Your task to perform on an android device: clear all cookies in the chrome app Image 0: 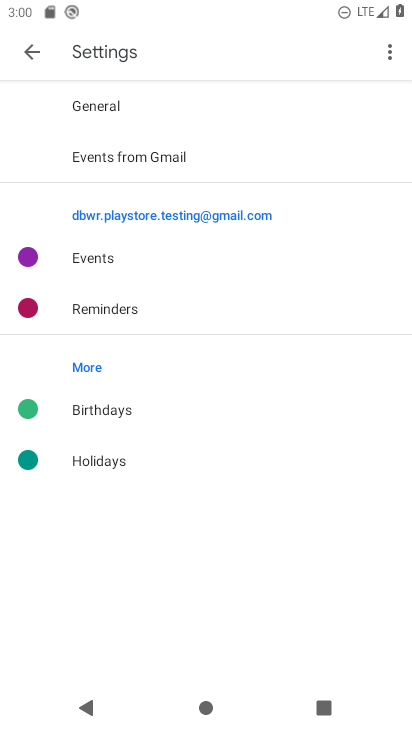
Step 0: press home button
Your task to perform on an android device: clear all cookies in the chrome app Image 1: 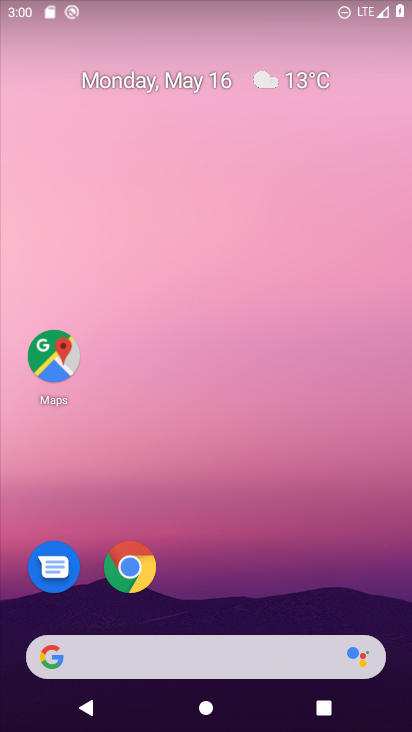
Step 1: click (140, 569)
Your task to perform on an android device: clear all cookies in the chrome app Image 2: 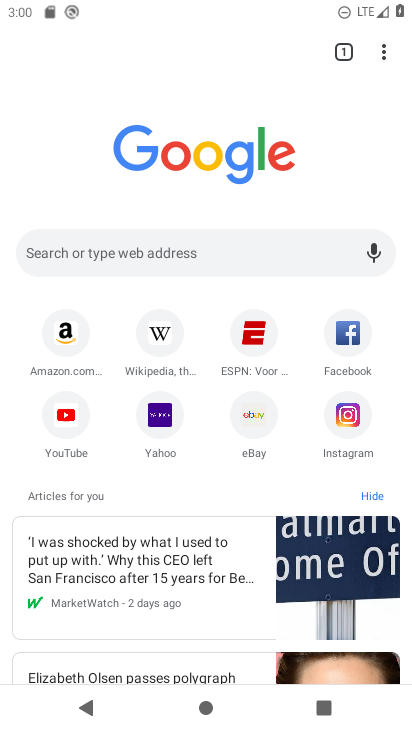
Step 2: click (385, 45)
Your task to perform on an android device: clear all cookies in the chrome app Image 3: 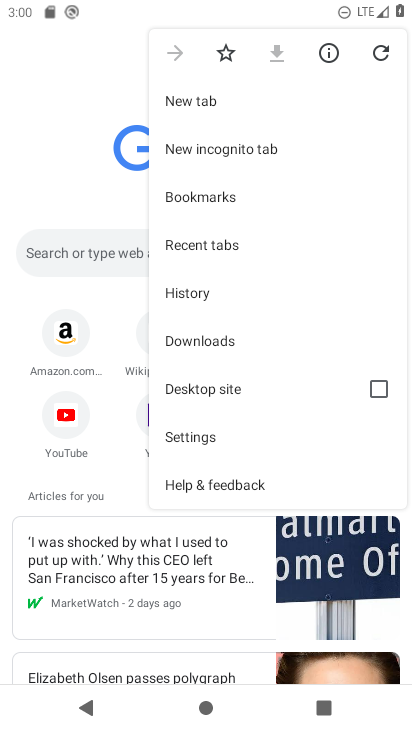
Step 3: click (221, 433)
Your task to perform on an android device: clear all cookies in the chrome app Image 4: 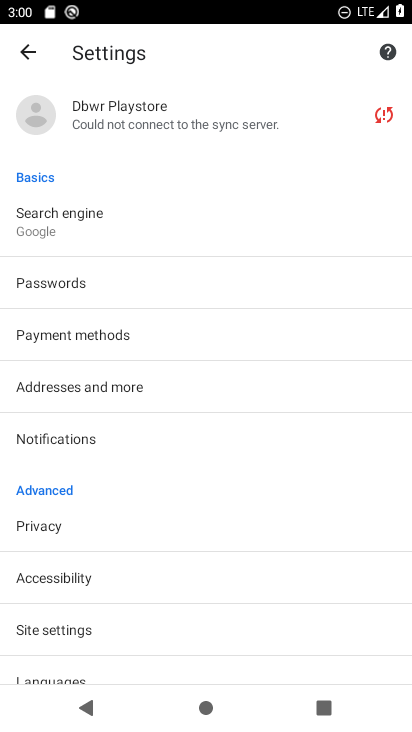
Step 4: click (56, 528)
Your task to perform on an android device: clear all cookies in the chrome app Image 5: 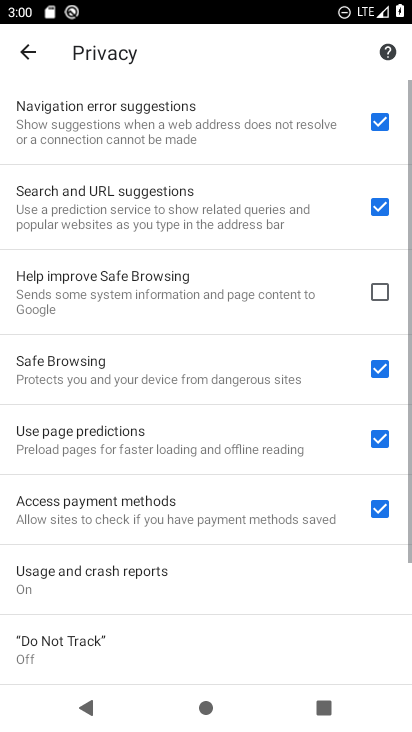
Step 5: drag from (136, 623) to (125, 213)
Your task to perform on an android device: clear all cookies in the chrome app Image 6: 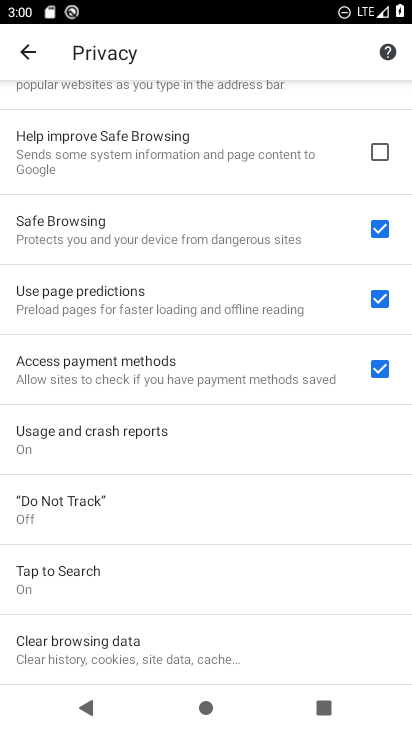
Step 6: click (91, 632)
Your task to perform on an android device: clear all cookies in the chrome app Image 7: 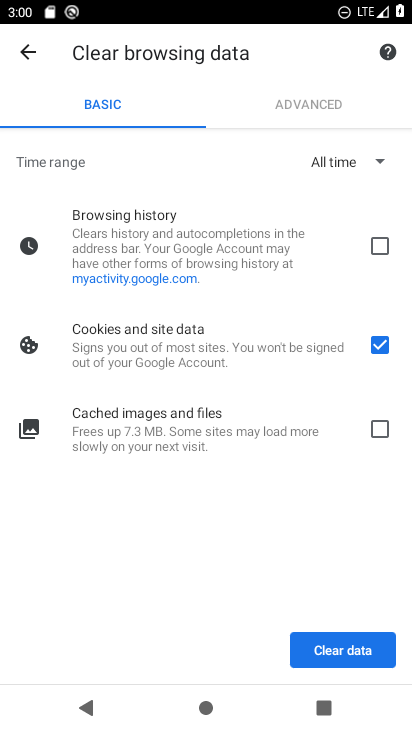
Step 7: click (346, 643)
Your task to perform on an android device: clear all cookies in the chrome app Image 8: 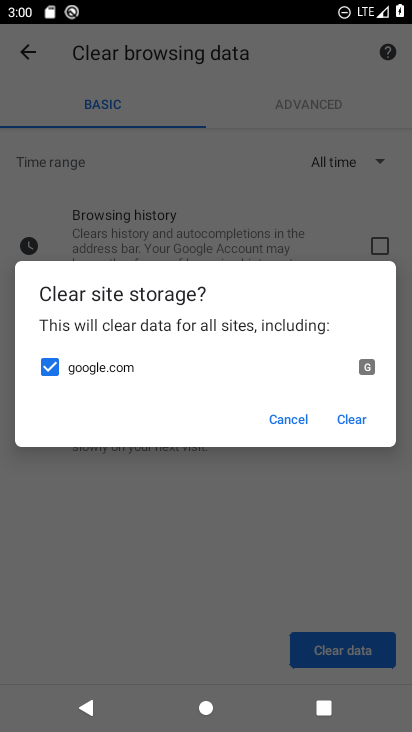
Step 8: click (360, 416)
Your task to perform on an android device: clear all cookies in the chrome app Image 9: 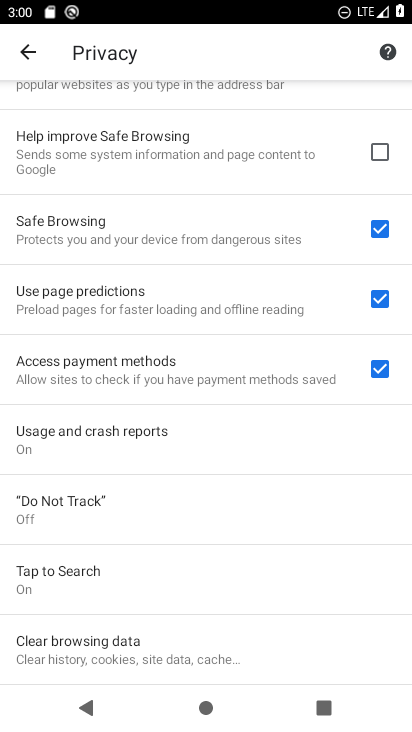
Step 9: task complete